Your task to perform on an android device: toggle priority inbox in the gmail app Image 0: 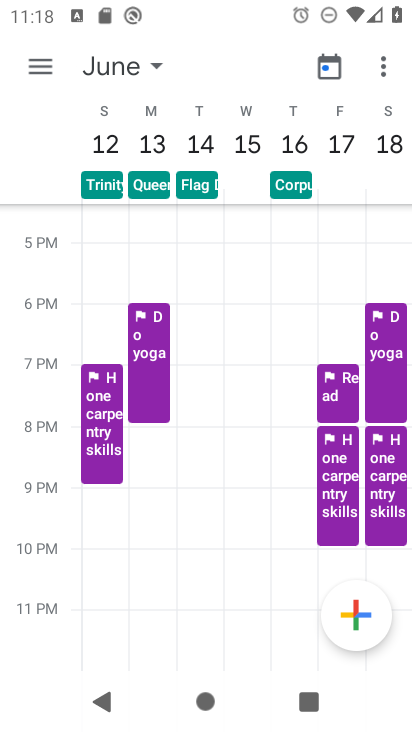
Step 0: press home button
Your task to perform on an android device: toggle priority inbox in the gmail app Image 1: 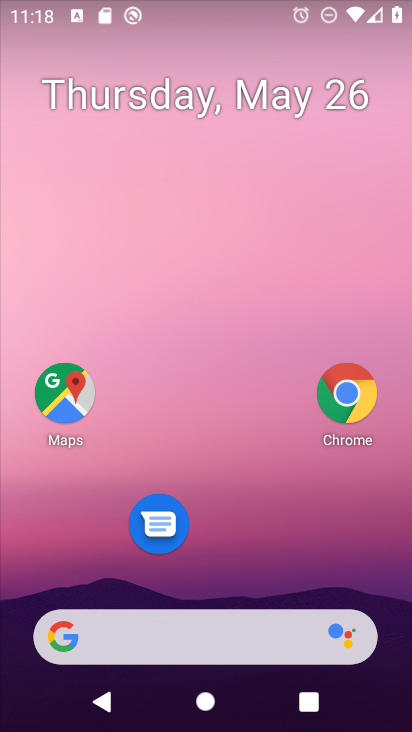
Step 1: drag from (273, 540) to (242, 33)
Your task to perform on an android device: toggle priority inbox in the gmail app Image 2: 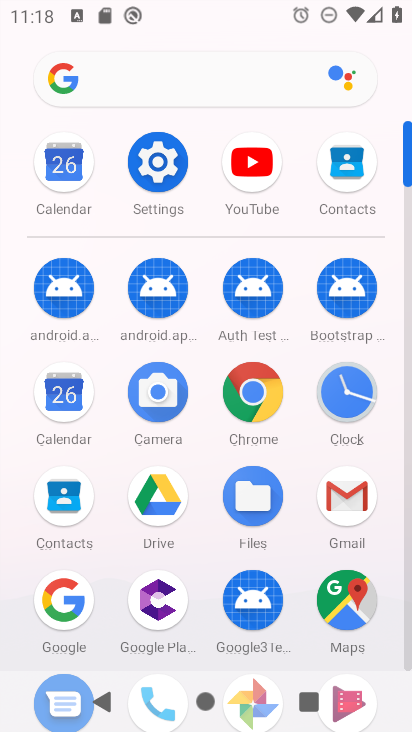
Step 2: click (351, 493)
Your task to perform on an android device: toggle priority inbox in the gmail app Image 3: 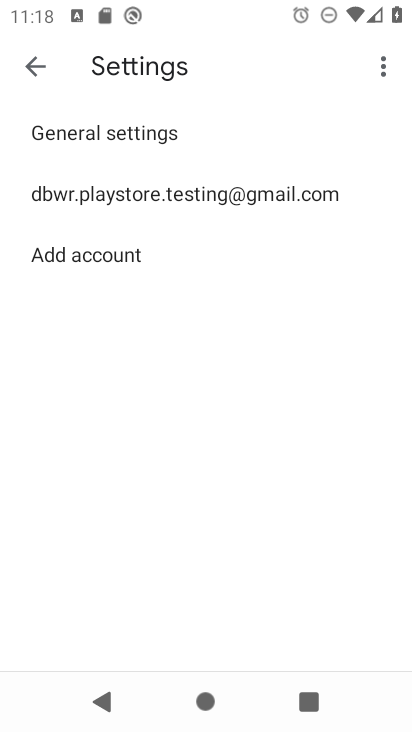
Step 3: click (101, 193)
Your task to perform on an android device: toggle priority inbox in the gmail app Image 4: 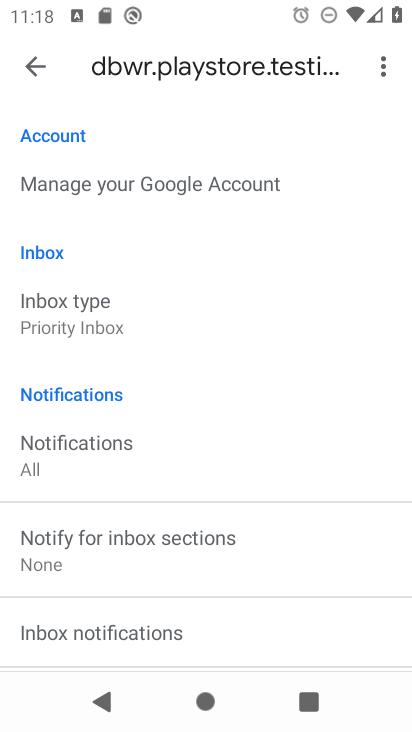
Step 4: click (88, 312)
Your task to perform on an android device: toggle priority inbox in the gmail app Image 5: 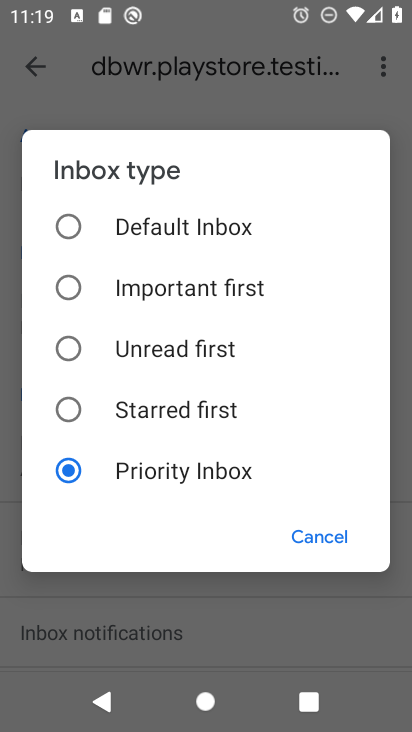
Step 5: click (70, 228)
Your task to perform on an android device: toggle priority inbox in the gmail app Image 6: 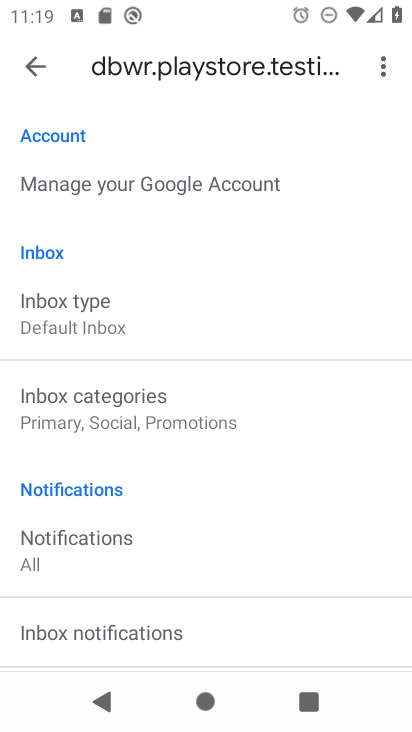
Step 6: task complete